Your task to perform on an android device: check battery use Image 0: 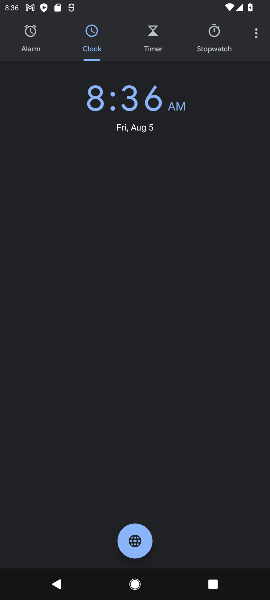
Step 0: press home button
Your task to perform on an android device: check battery use Image 1: 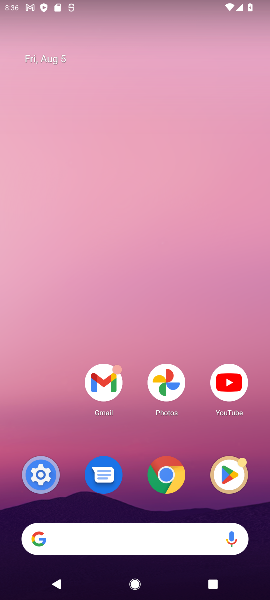
Step 1: drag from (128, 447) to (133, 2)
Your task to perform on an android device: check battery use Image 2: 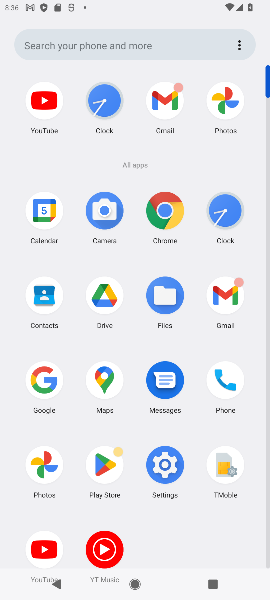
Step 2: click (164, 471)
Your task to perform on an android device: check battery use Image 3: 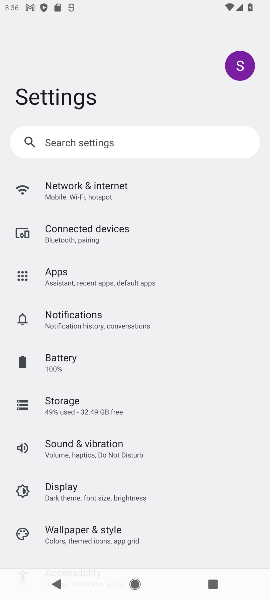
Step 3: click (59, 367)
Your task to perform on an android device: check battery use Image 4: 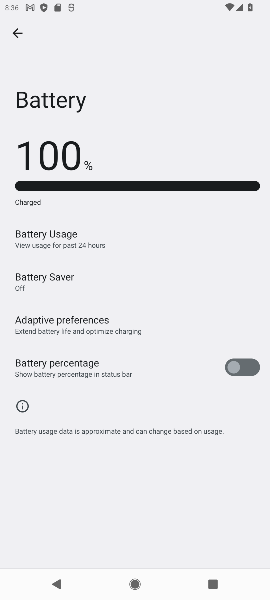
Step 4: click (92, 234)
Your task to perform on an android device: check battery use Image 5: 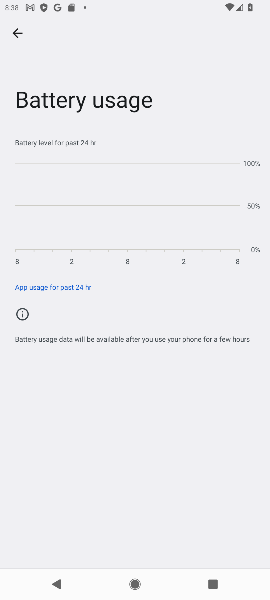
Step 5: task complete